Your task to perform on an android device: Go to Google Image 0: 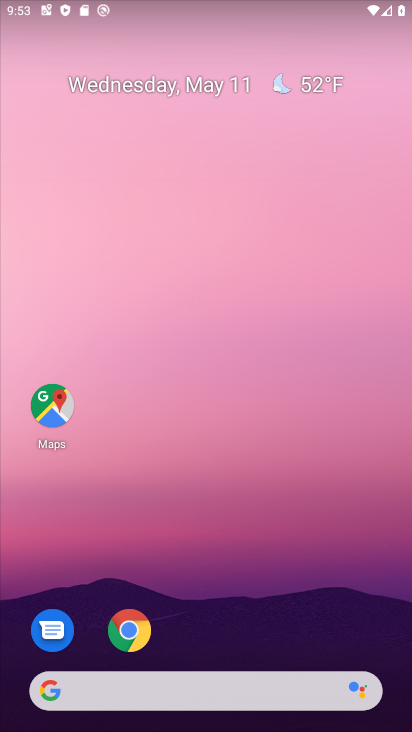
Step 0: drag from (200, 624) to (253, 34)
Your task to perform on an android device: Go to Google Image 1: 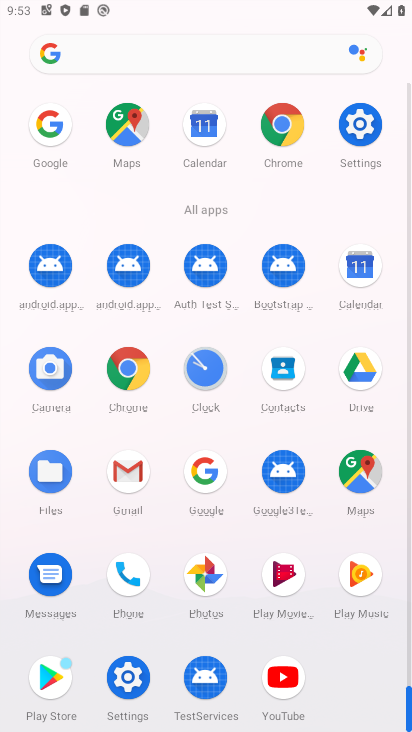
Step 1: click (46, 127)
Your task to perform on an android device: Go to Google Image 2: 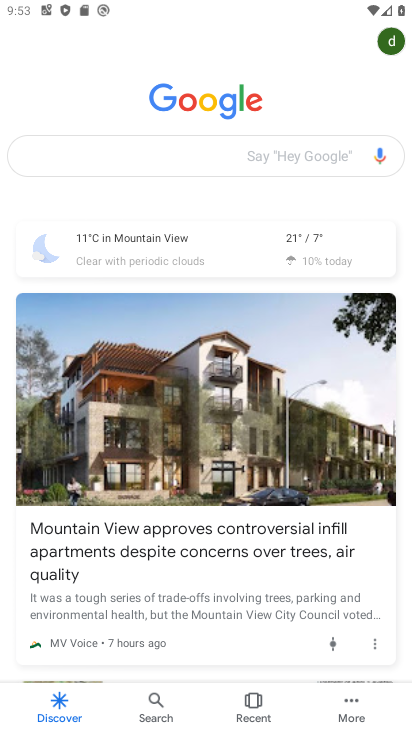
Step 2: task complete